Your task to perform on an android device: Do I have any events today? Image 0: 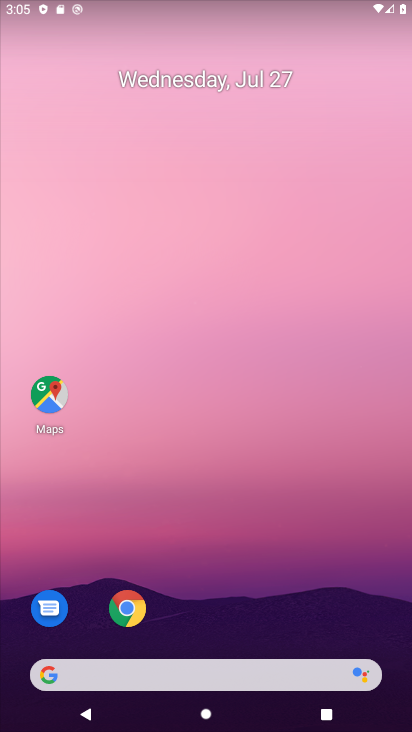
Step 0: drag from (238, 728) to (246, 104)
Your task to perform on an android device: Do I have any events today? Image 1: 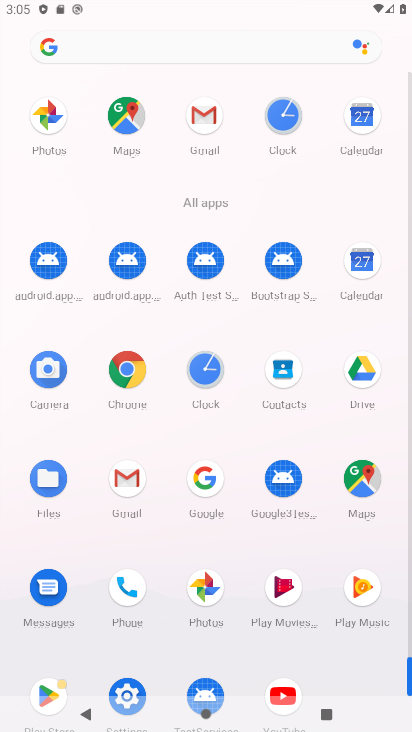
Step 1: click (366, 272)
Your task to perform on an android device: Do I have any events today? Image 2: 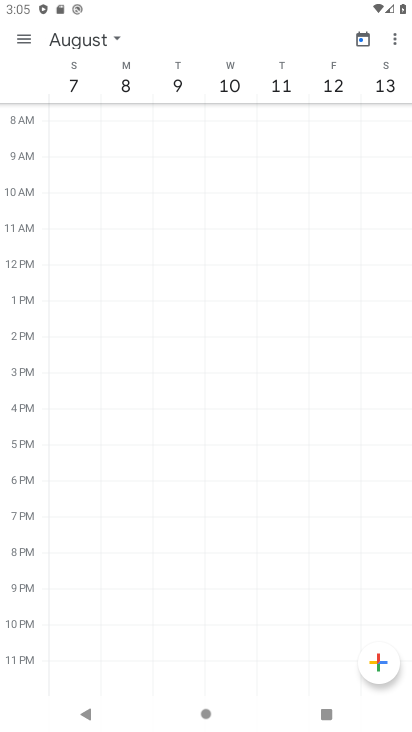
Step 2: click (113, 42)
Your task to perform on an android device: Do I have any events today? Image 3: 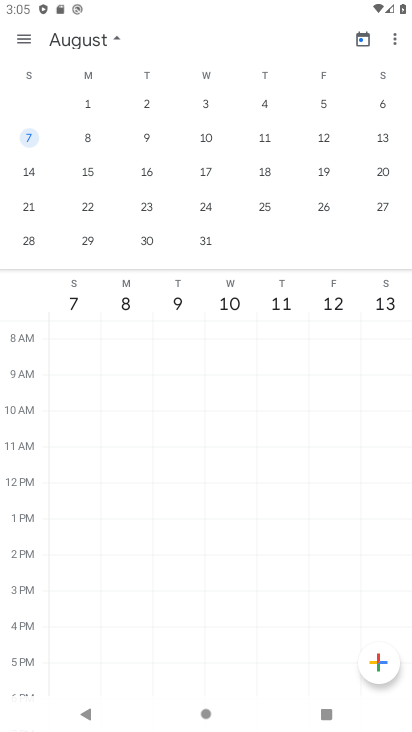
Step 3: click (75, 299)
Your task to perform on an android device: Do I have any events today? Image 4: 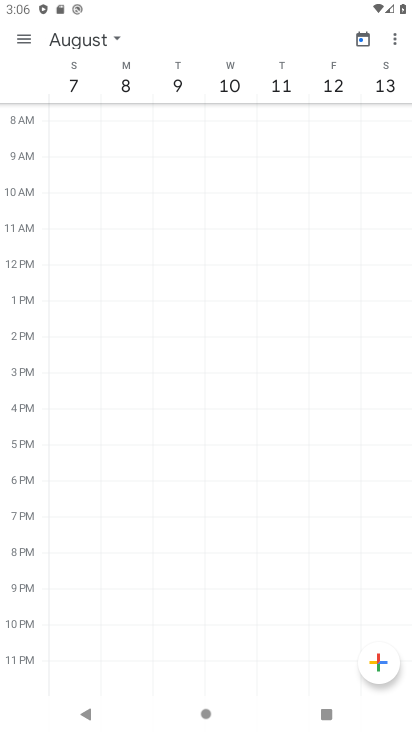
Step 4: click (31, 36)
Your task to perform on an android device: Do I have any events today? Image 5: 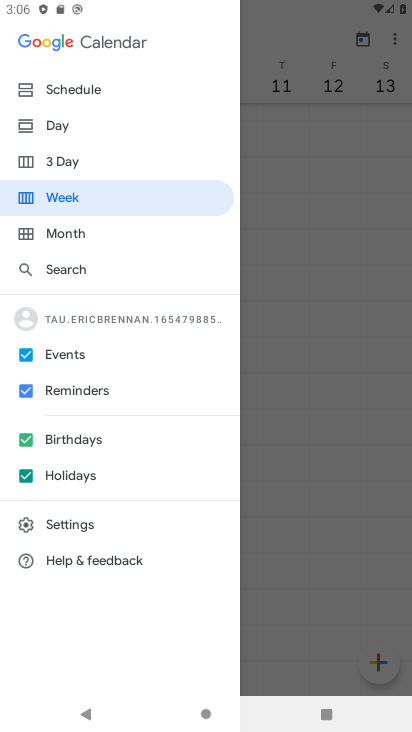
Step 5: click (27, 477)
Your task to perform on an android device: Do I have any events today? Image 6: 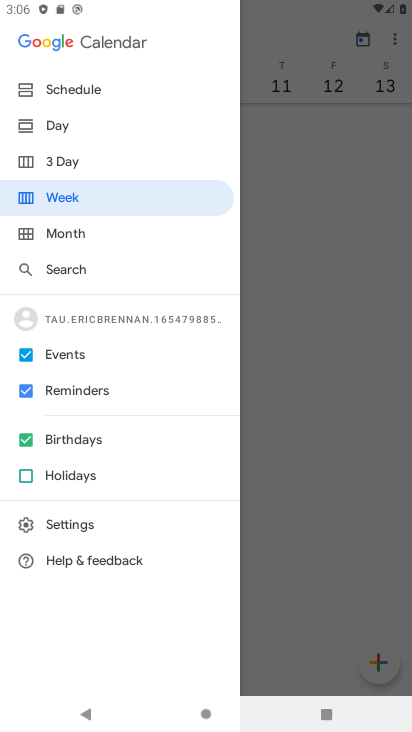
Step 6: click (30, 436)
Your task to perform on an android device: Do I have any events today? Image 7: 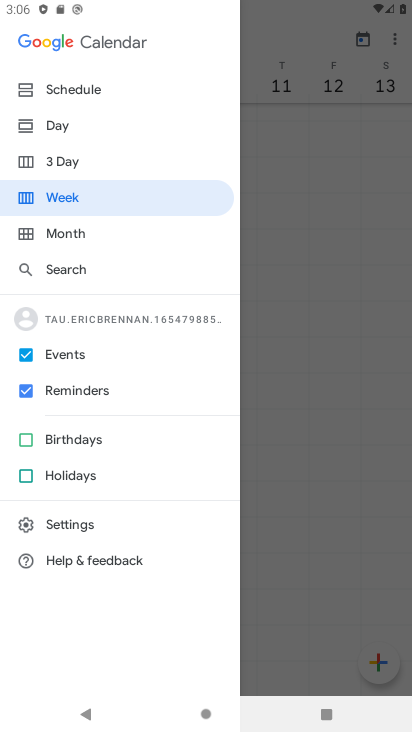
Step 7: click (27, 393)
Your task to perform on an android device: Do I have any events today? Image 8: 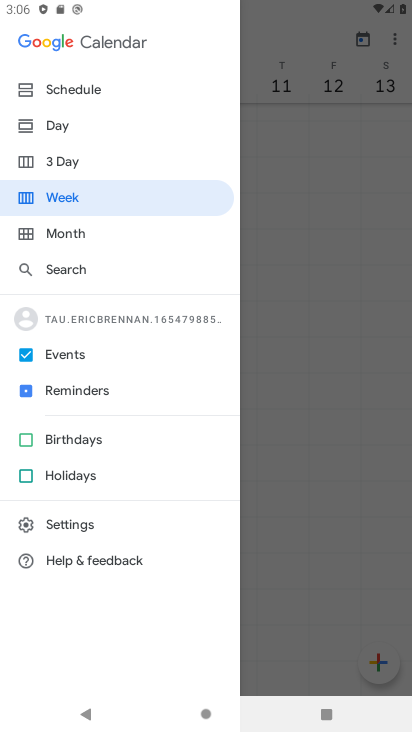
Step 8: click (353, 139)
Your task to perform on an android device: Do I have any events today? Image 9: 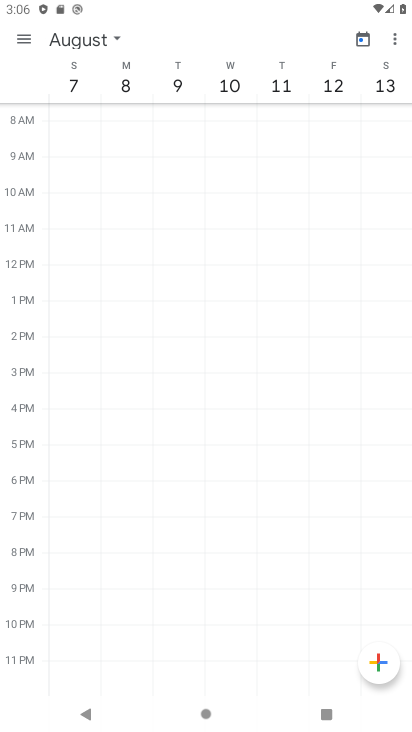
Step 9: drag from (80, 79) to (276, 79)
Your task to perform on an android device: Do I have any events today? Image 10: 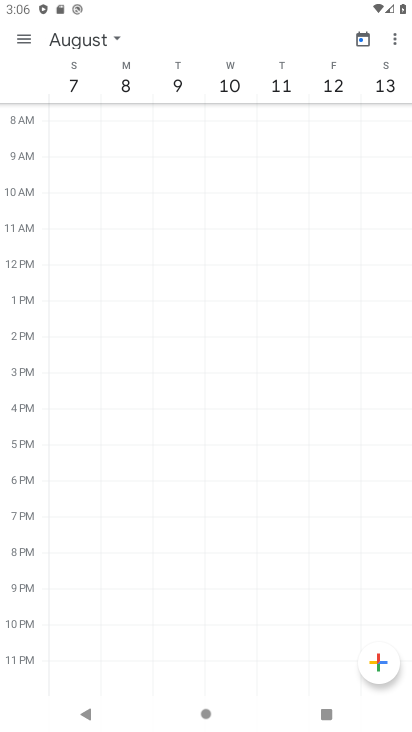
Step 10: drag from (69, 81) to (369, 81)
Your task to perform on an android device: Do I have any events today? Image 11: 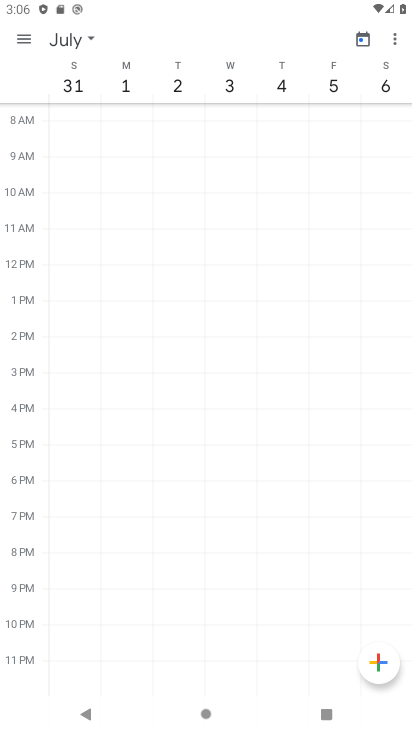
Step 11: click (91, 36)
Your task to perform on an android device: Do I have any events today? Image 12: 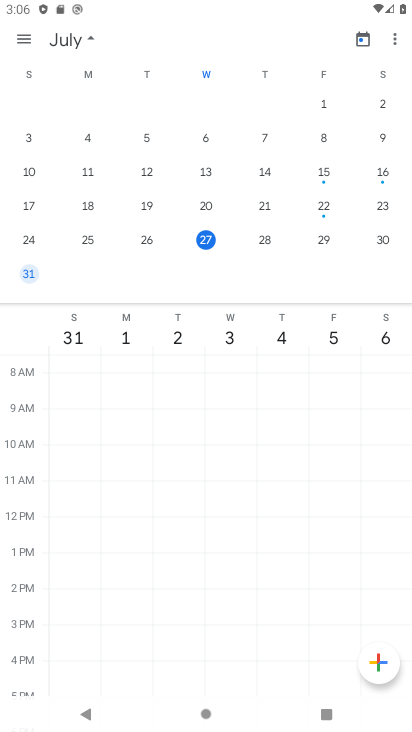
Step 12: click (204, 234)
Your task to perform on an android device: Do I have any events today? Image 13: 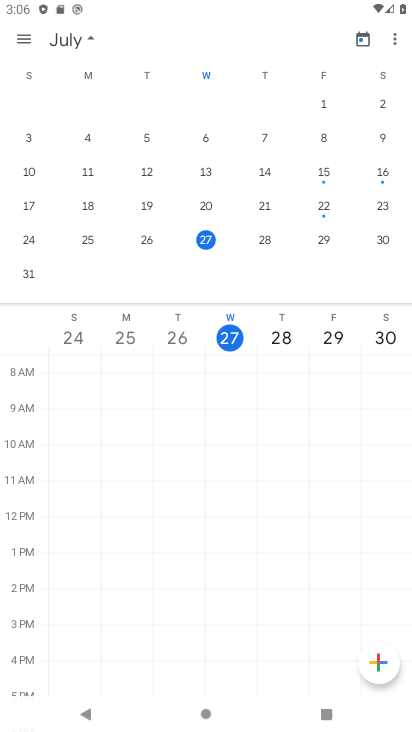
Step 13: click (206, 242)
Your task to perform on an android device: Do I have any events today? Image 14: 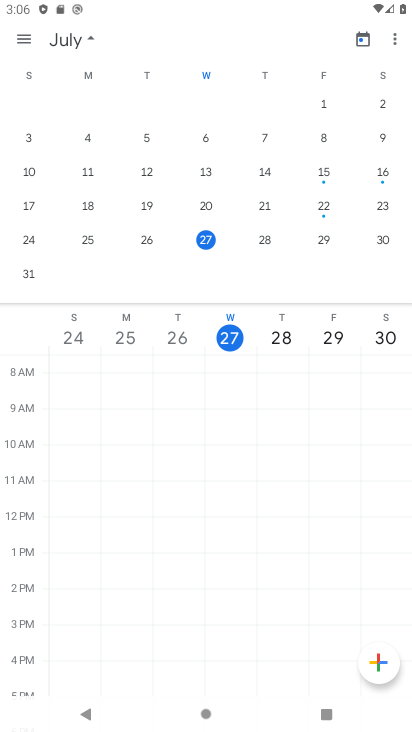
Step 14: click (206, 236)
Your task to perform on an android device: Do I have any events today? Image 15: 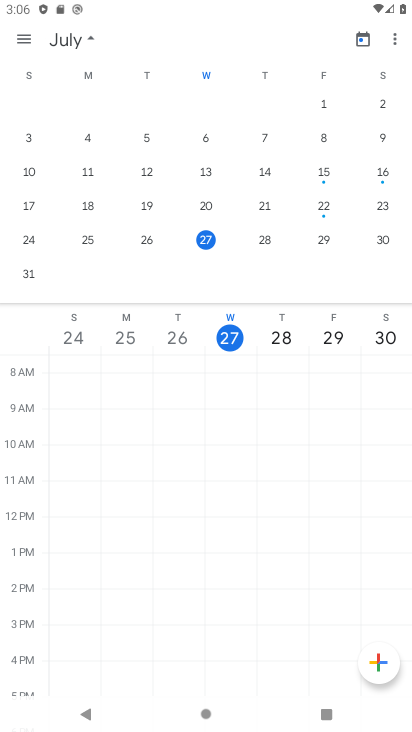
Step 15: task complete